Your task to perform on an android device: turn on bluetooth scan Image 0: 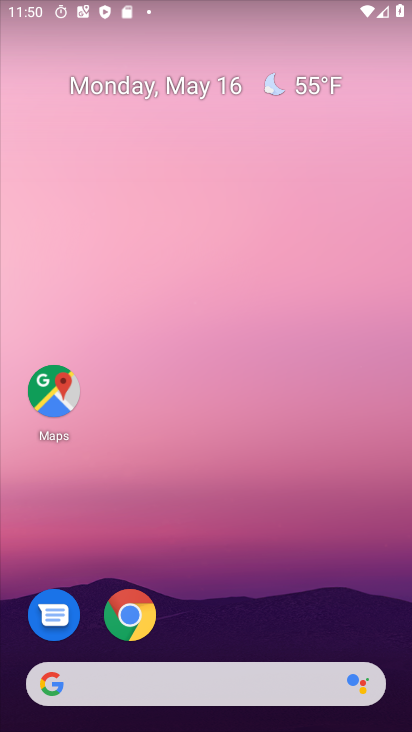
Step 0: drag from (230, 602) to (275, 96)
Your task to perform on an android device: turn on bluetooth scan Image 1: 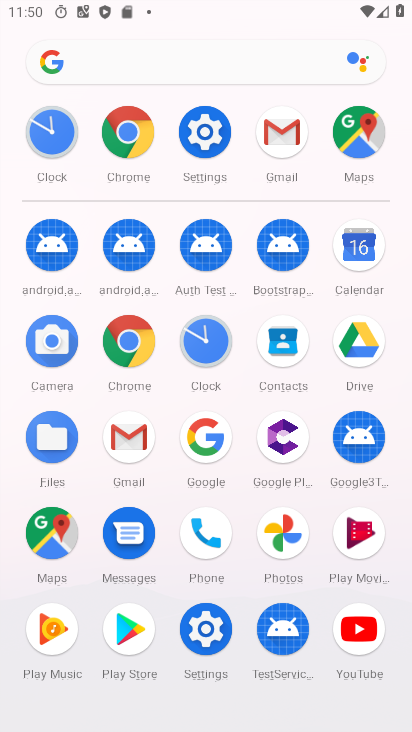
Step 1: click (199, 132)
Your task to perform on an android device: turn on bluetooth scan Image 2: 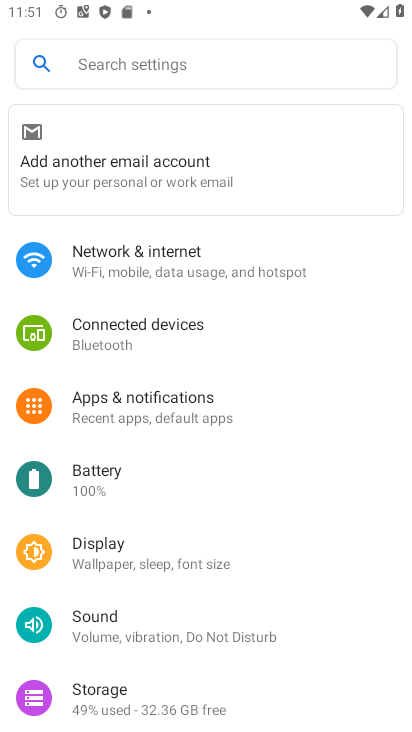
Step 2: drag from (202, 688) to (237, 287)
Your task to perform on an android device: turn on bluetooth scan Image 3: 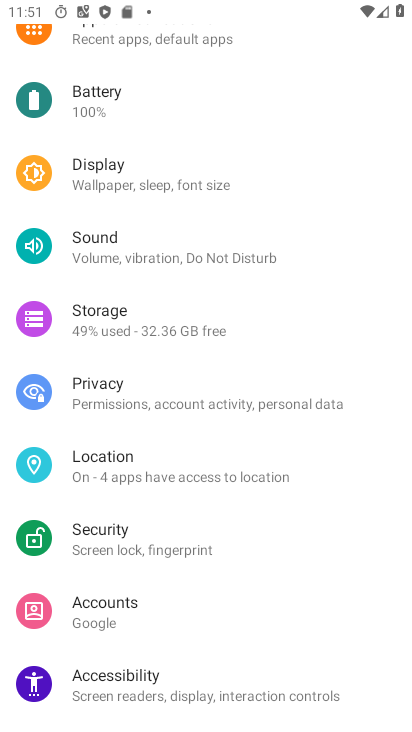
Step 3: click (126, 467)
Your task to perform on an android device: turn on bluetooth scan Image 4: 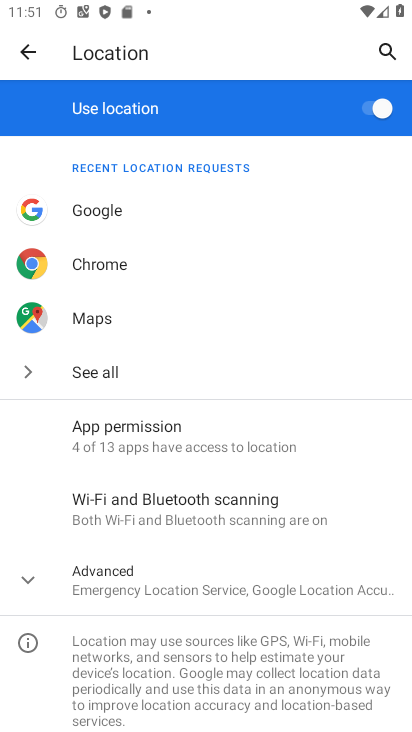
Step 4: click (244, 504)
Your task to perform on an android device: turn on bluetooth scan Image 5: 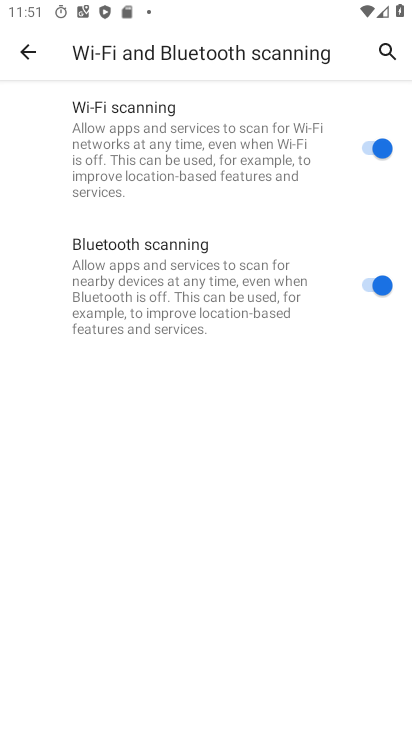
Step 5: task complete